Your task to perform on an android device: Open calendar and show me the fourth week of next month Image 0: 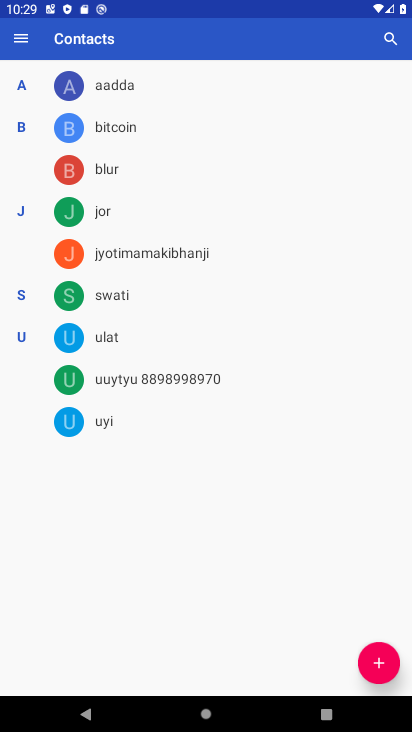
Step 0: press home button
Your task to perform on an android device: Open calendar and show me the fourth week of next month Image 1: 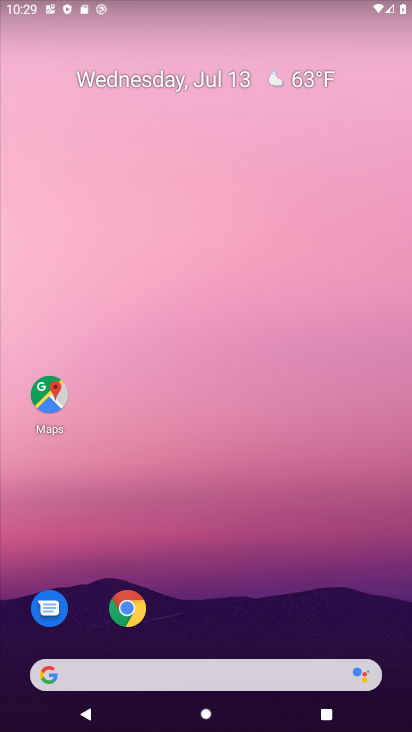
Step 1: drag from (272, 486) to (305, 50)
Your task to perform on an android device: Open calendar and show me the fourth week of next month Image 2: 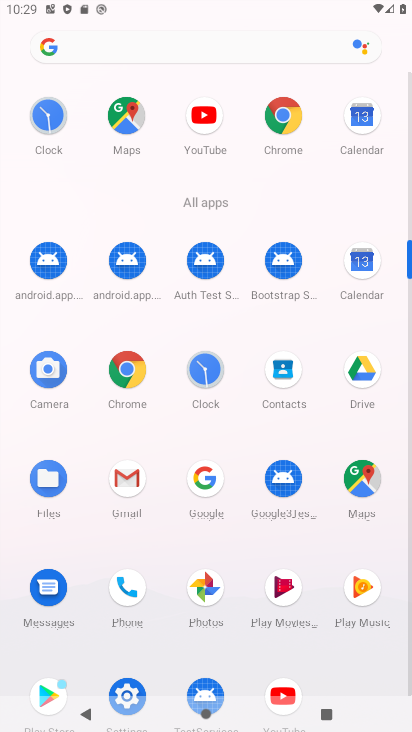
Step 2: click (363, 108)
Your task to perform on an android device: Open calendar and show me the fourth week of next month Image 3: 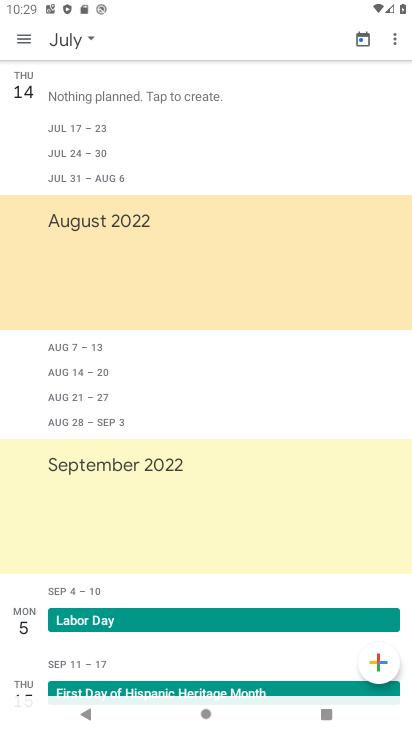
Step 3: click (22, 37)
Your task to perform on an android device: Open calendar and show me the fourth week of next month Image 4: 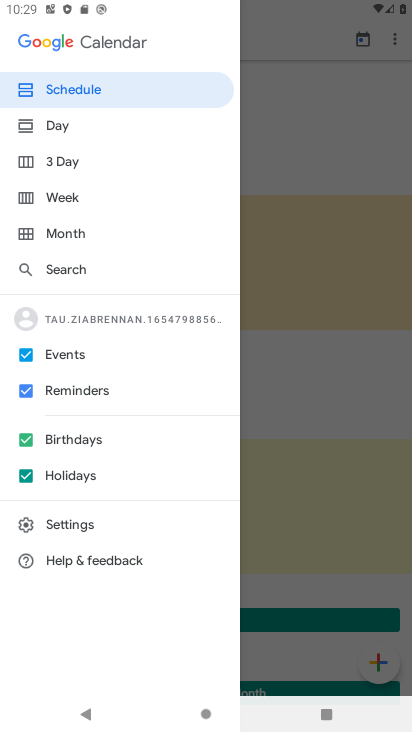
Step 4: click (85, 237)
Your task to perform on an android device: Open calendar and show me the fourth week of next month Image 5: 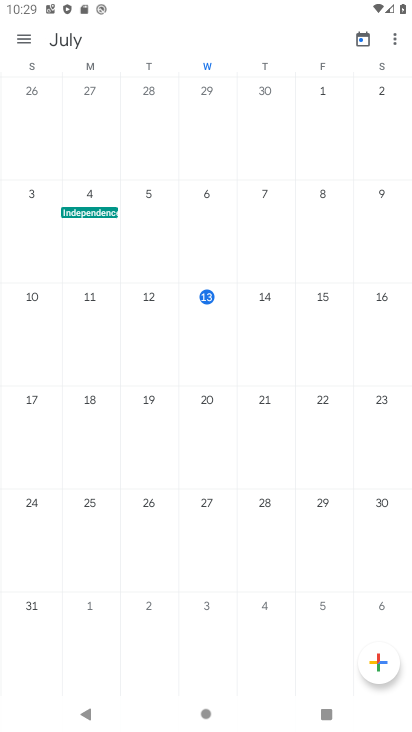
Step 5: task complete